Your task to perform on an android device: check data usage Image 0: 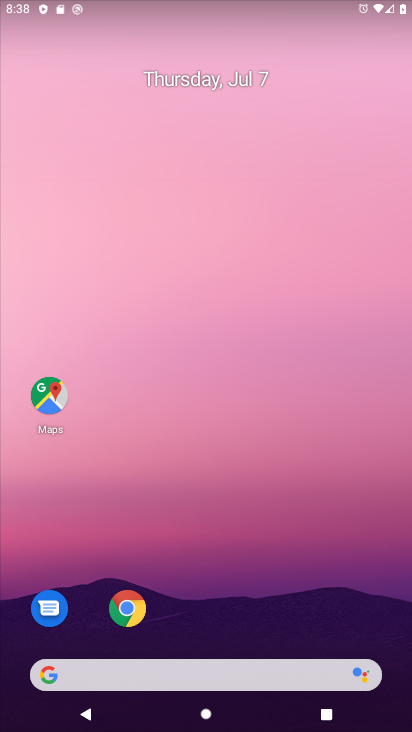
Step 0: press home button
Your task to perform on an android device: check data usage Image 1: 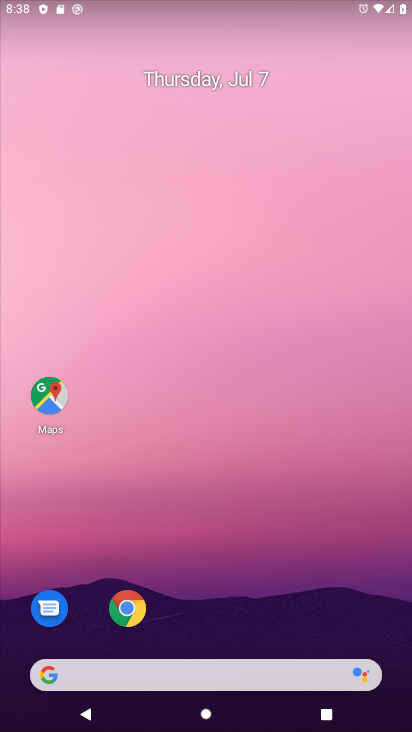
Step 1: click (191, 356)
Your task to perform on an android device: check data usage Image 2: 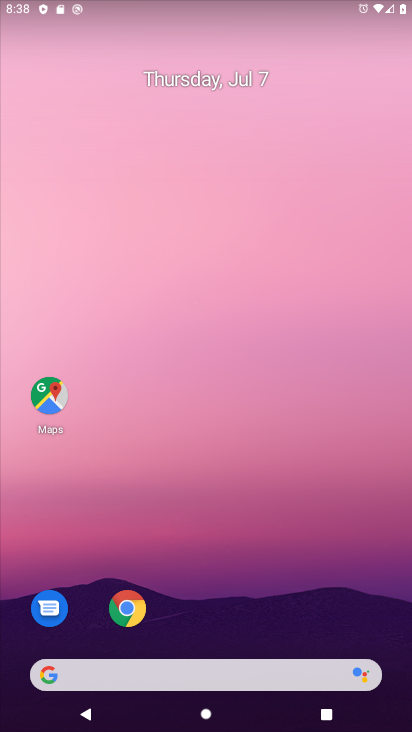
Step 2: click (240, 238)
Your task to perform on an android device: check data usage Image 3: 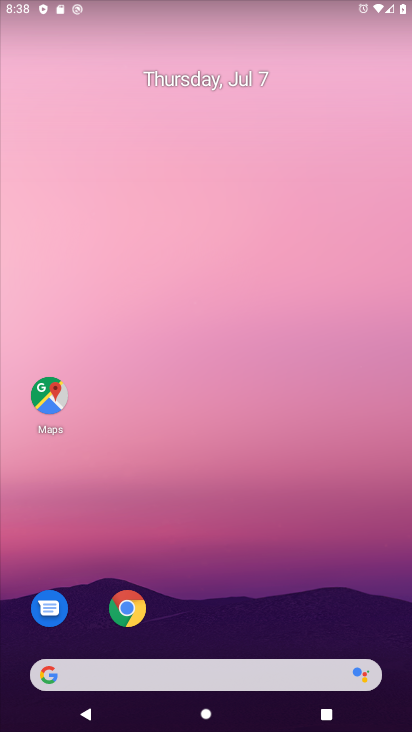
Step 3: drag from (198, 668) to (165, 210)
Your task to perform on an android device: check data usage Image 4: 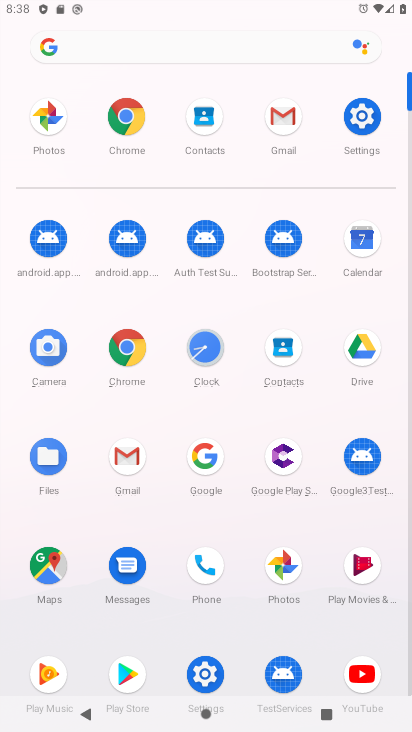
Step 4: click (351, 120)
Your task to perform on an android device: check data usage Image 5: 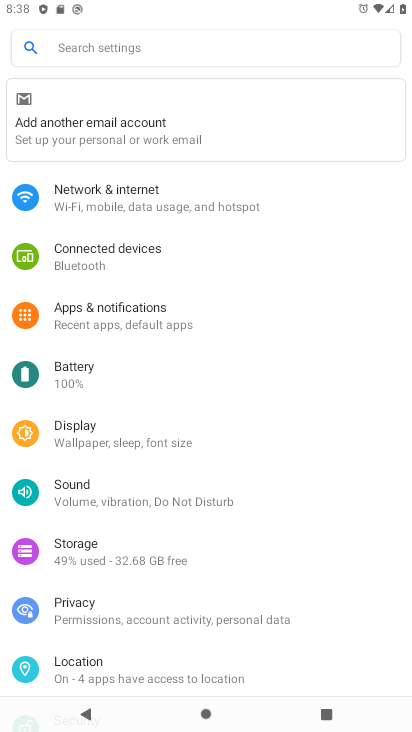
Step 5: click (128, 202)
Your task to perform on an android device: check data usage Image 6: 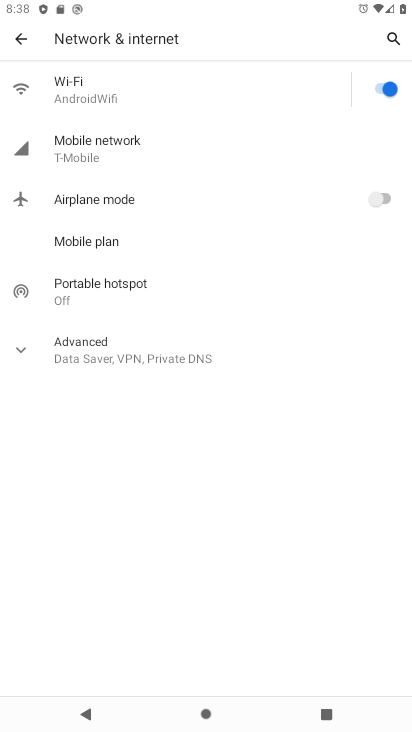
Step 6: click (101, 150)
Your task to perform on an android device: check data usage Image 7: 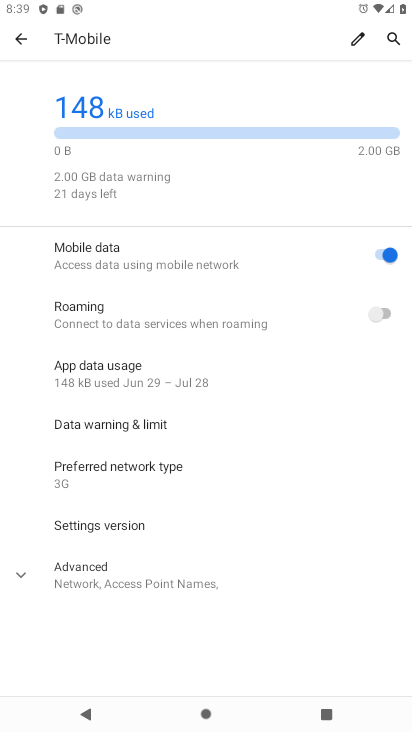
Step 7: task complete